Your task to perform on an android device: Go to CNN.com Image 0: 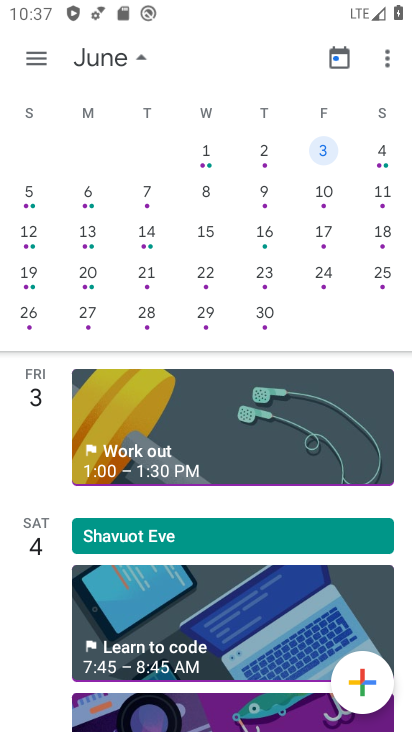
Step 0: press home button
Your task to perform on an android device: Go to CNN.com Image 1: 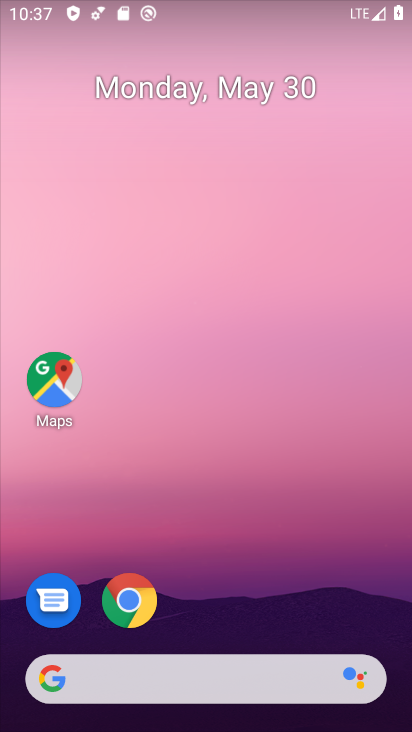
Step 1: click (126, 612)
Your task to perform on an android device: Go to CNN.com Image 2: 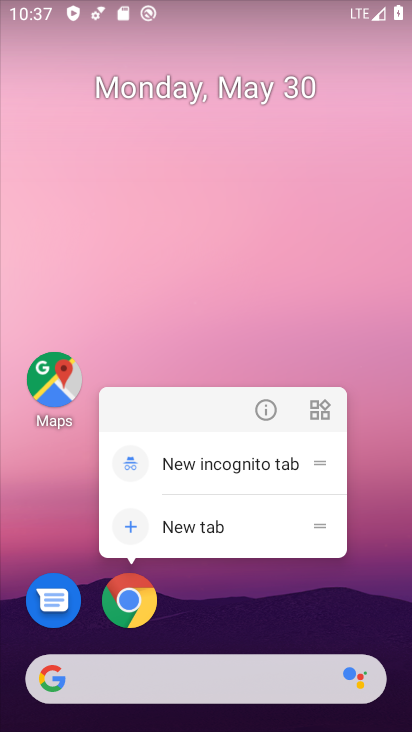
Step 2: click (342, 280)
Your task to perform on an android device: Go to CNN.com Image 3: 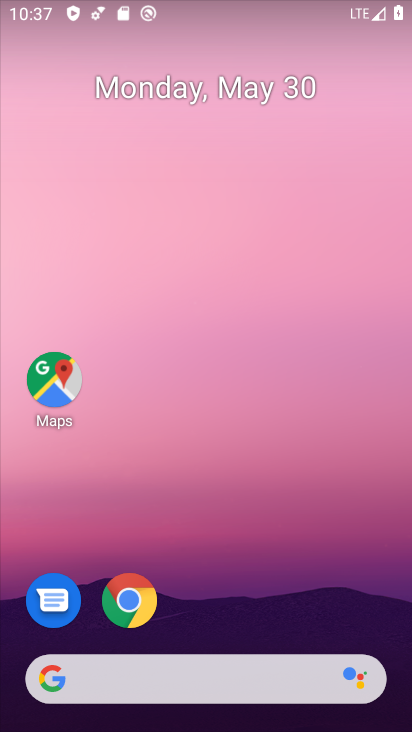
Step 3: drag from (361, 604) to (326, 95)
Your task to perform on an android device: Go to CNN.com Image 4: 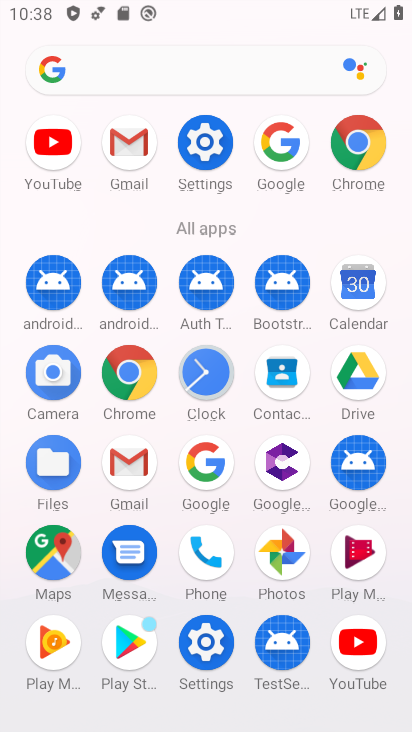
Step 4: click (122, 363)
Your task to perform on an android device: Go to CNN.com Image 5: 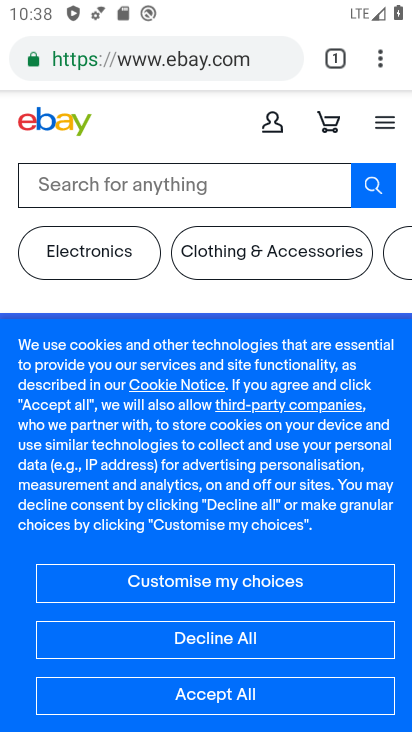
Step 5: click (133, 65)
Your task to perform on an android device: Go to CNN.com Image 6: 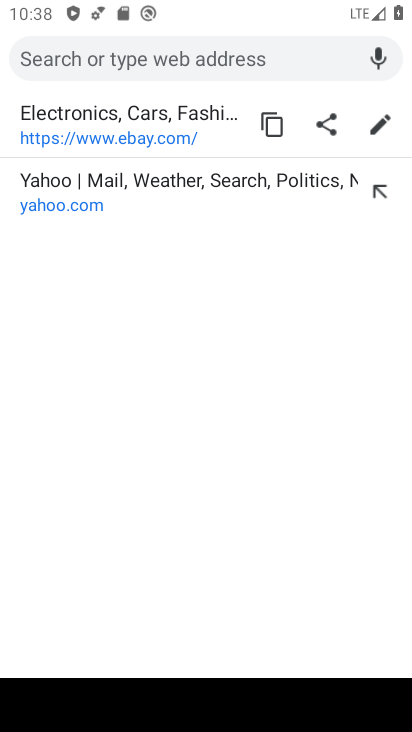
Step 6: type "CNN.com"
Your task to perform on an android device: Go to CNN.com Image 7: 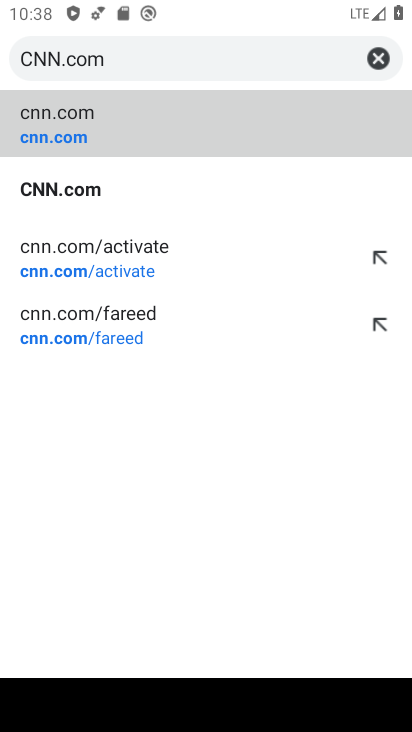
Step 7: click (60, 143)
Your task to perform on an android device: Go to CNN.com Image 8: 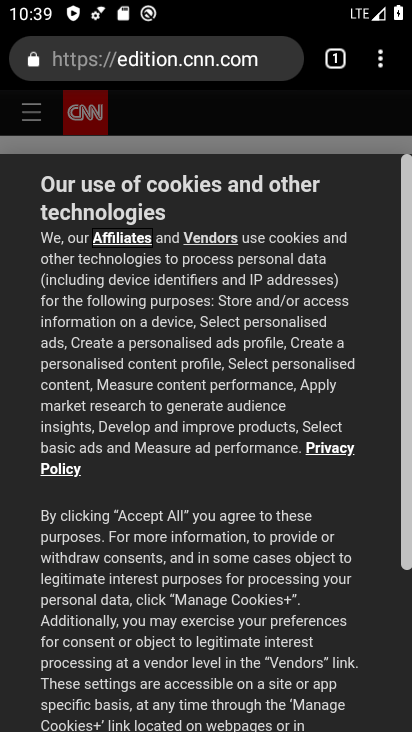
Step 8: task complete